Your task to perform on an android device: change the clock display to analog Image 0: 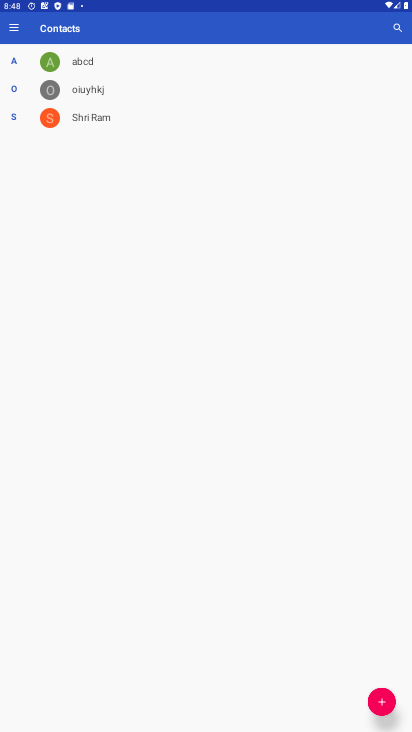
Step 0: press home button
Your task to perform on an android device: change the clock display to analog Image 1: 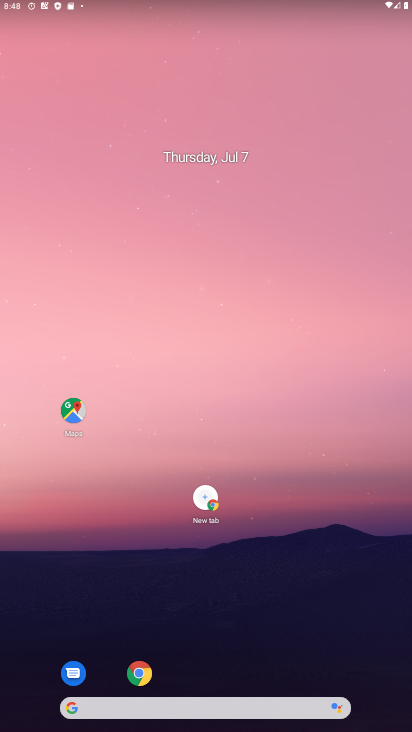
Step 1: drag from (259, 616) to (244, 64)
Your task to perform on an android device: change the clock display to analog Image 2: 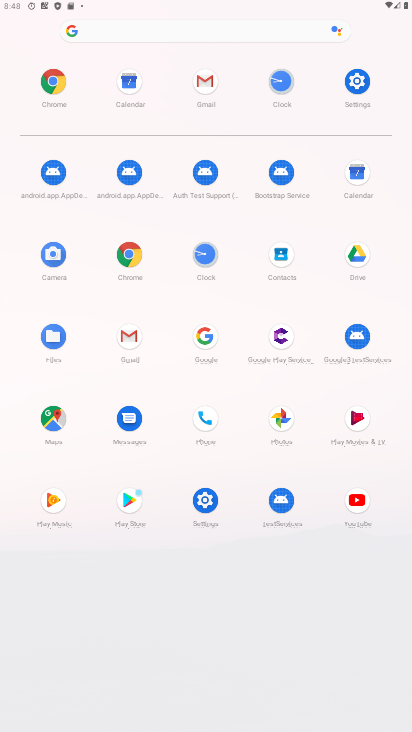
Step 2: click (201, 254)
Your task to perform on an android device: change the clock display to analog Image 3: 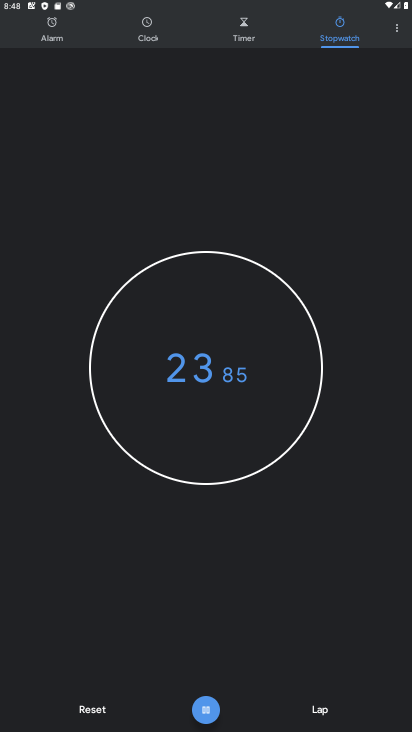
Step 3: click (400, 38)
Your task to perform on an android device: change the clock display to analog Image 4: 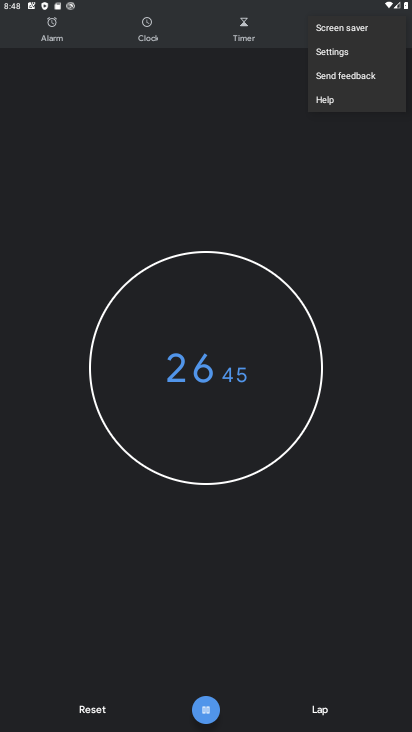
Step 4: click (318, 55)
Your task to perform on an android device: change the clock display to analog Image 5: 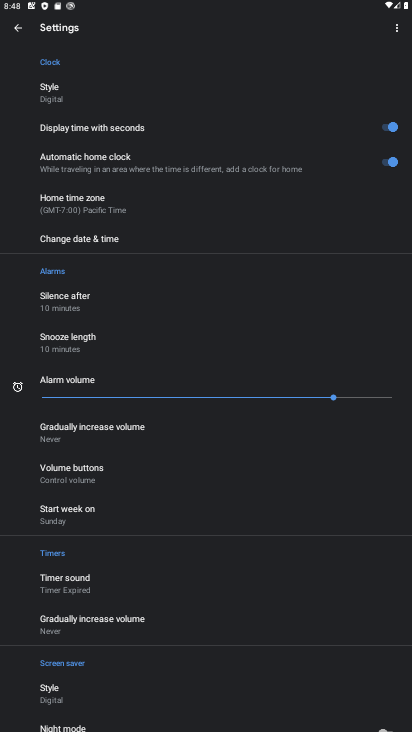
Step 5: click (49, 89)
Your task to perform on an android device: change the clock display to analog Image 6: 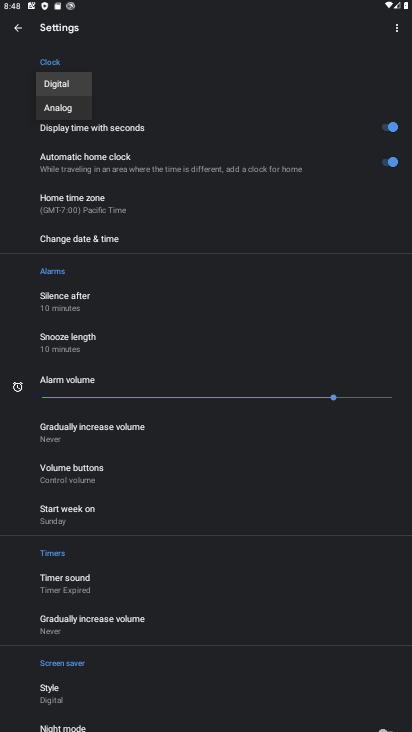
Step 6: click (51, 109)
Your task to perform on an android device: change the clock display to analog Image 7: 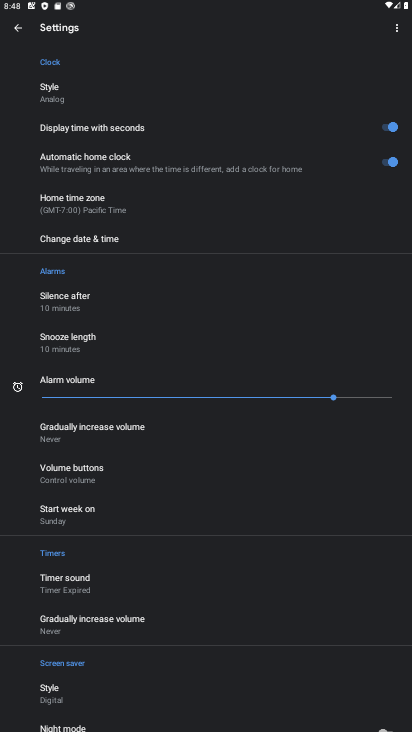
Step 7: task complete